Your task to perform on an android device: toggle wifi Image 0: 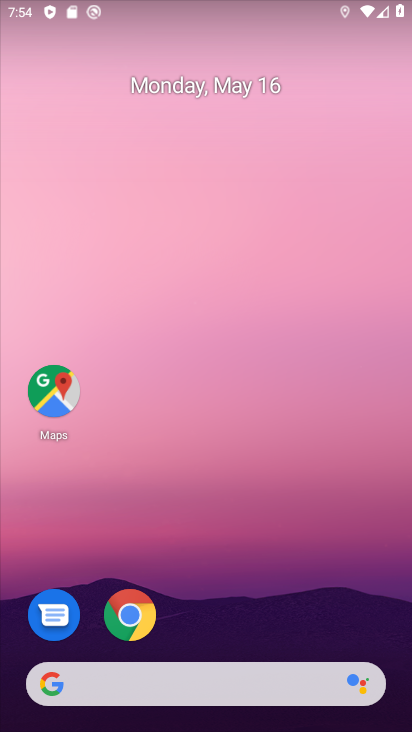
Step 0: drag from (286, 11) to (338, 493)
Your task to perform on an android device: toggle wifi Image 1: 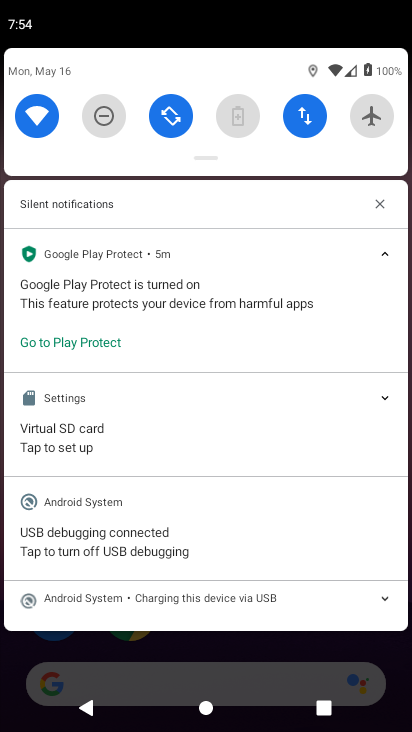
Step 1: click (45, 128)
Your task to perform on an android device: toggle wifi Image 2: 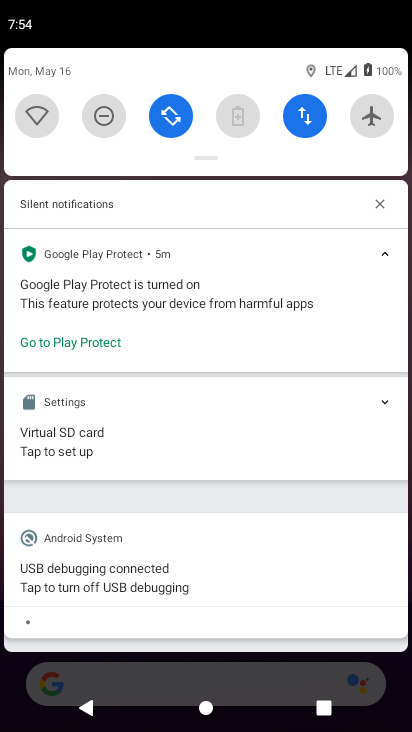
Step 2: click (45, 128)
Your task to perform on an android device: toggle wifi Image 3: 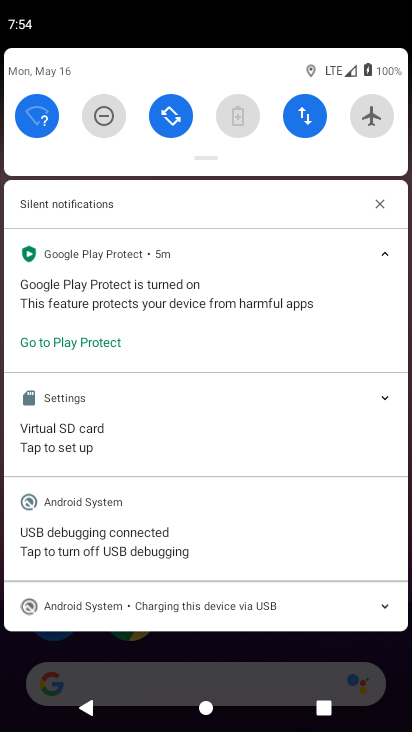
Step 3: click (45, 128)
Your task to perform on an android device: toggle wifi Image 4: 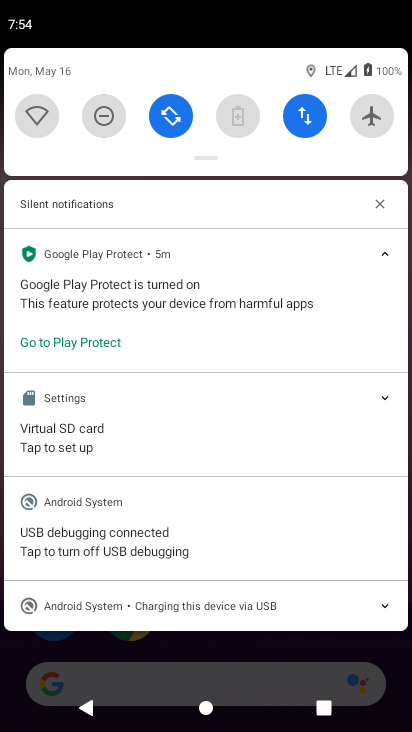
Step 4: click (45, 128)
Your task to perform on an android device: toggle wifi Image 5: 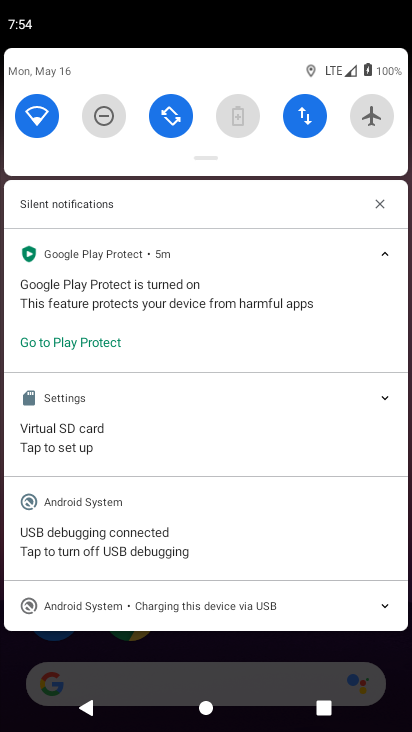
Step 5: click (45, 128)
Your task to perform on an android device: toggle wifi Image 6: 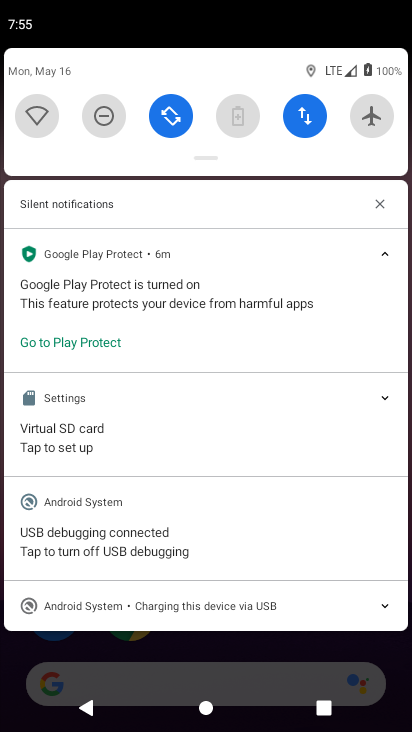
Step 6: click (34, 119)
Your task to perform on an android device: toggle wifi Image 7: 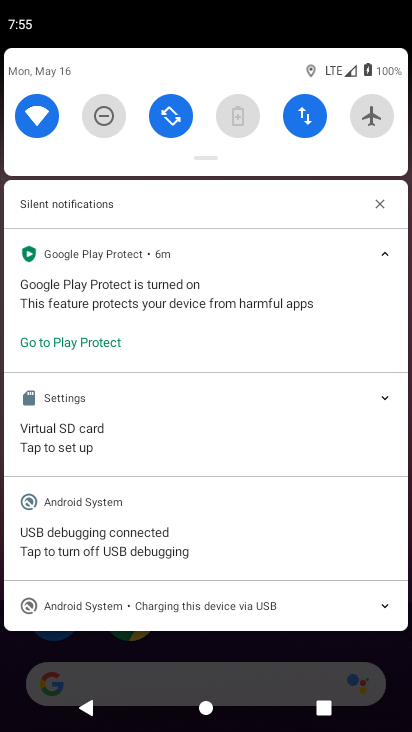
Step 7: task complete